Your task to perform on an android device: Go to Google maps Image 0: 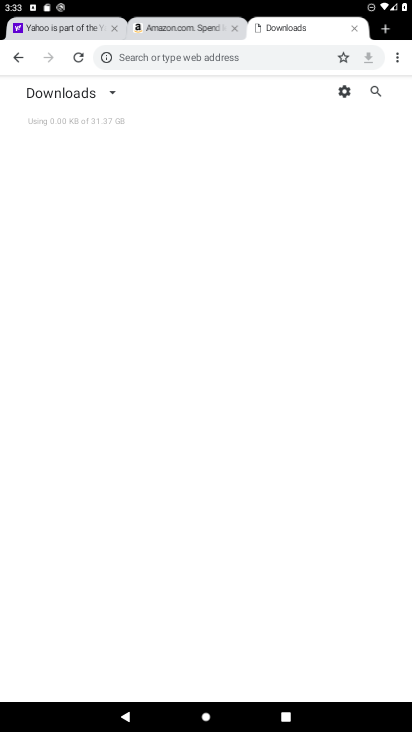
Step 0: press home button
Your task to perform on an android device: Go to Google maps Image 1: 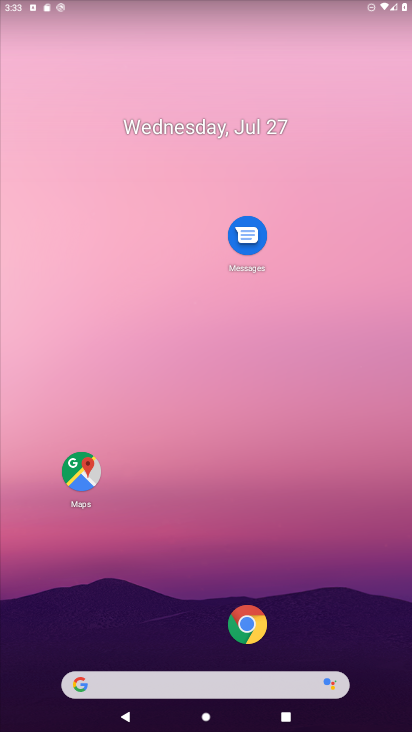
Step 1: click (69, 465)
Your task to perform on an android device: Go to Google maps Image 2: 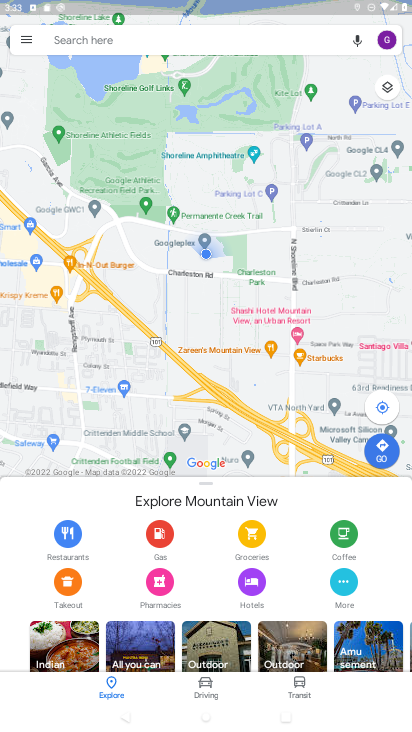
Step 2: task complete